Your task to perform on an android device: add a contact in the contacts app Image 0: 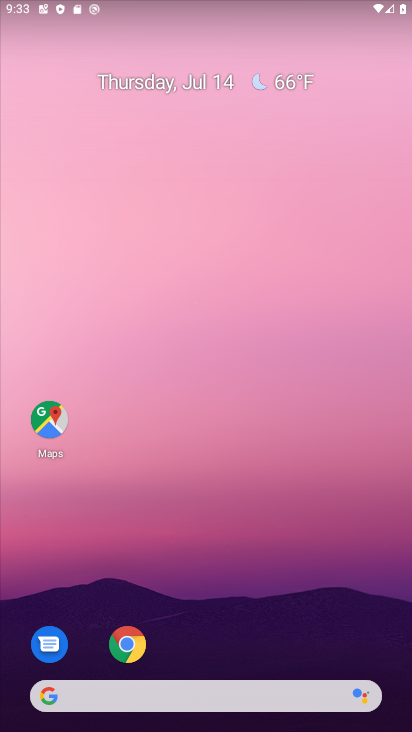
Step 0: drag from (223, 649) to (154, 302)
Your task to perform on an android device: add a contact in the contacts app Image 1: 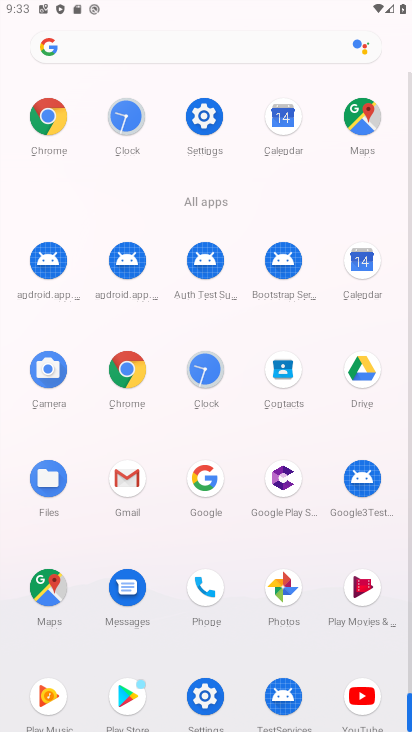
Step 1: click (279, 363)
Your task to perform on an android device: add a contact in the contacts app Image 2: 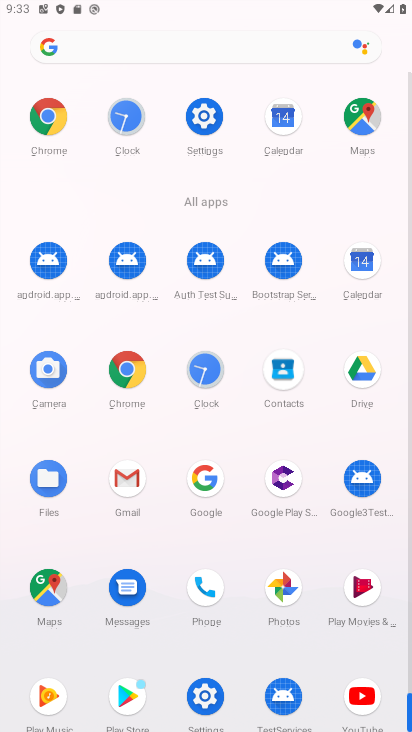
Step 2: click (279, 363)
Your task to perform on an android device: add a contact in the contacts app Image 3: 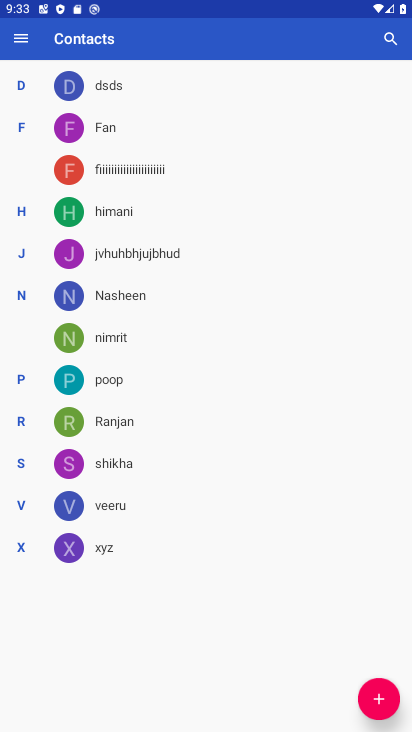
Step 3: click (377, 701)
Your task to perform on an android device: add a contact in the contacts app Image 4: 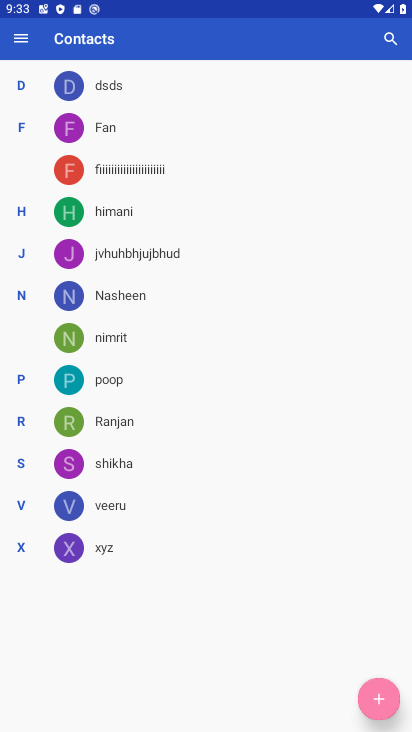
Step 4: click (376, 699)
Your task to perform on an android device: add a contact in the contacts app Image 5: 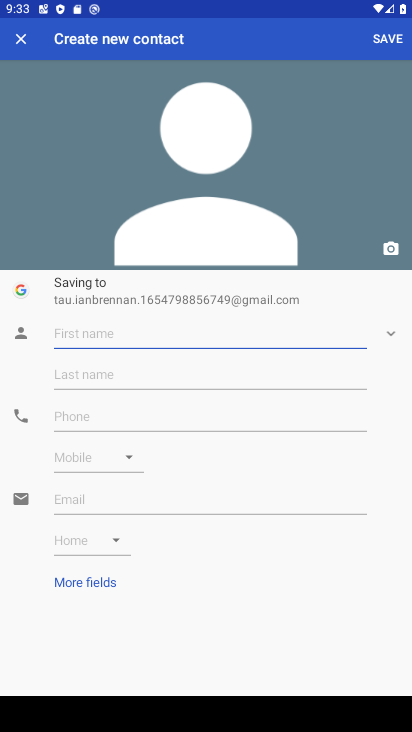
Step 5: type "jb jhbjhbjh"
Your task to perform on an android device: add a contact in the contacts app Image 6: 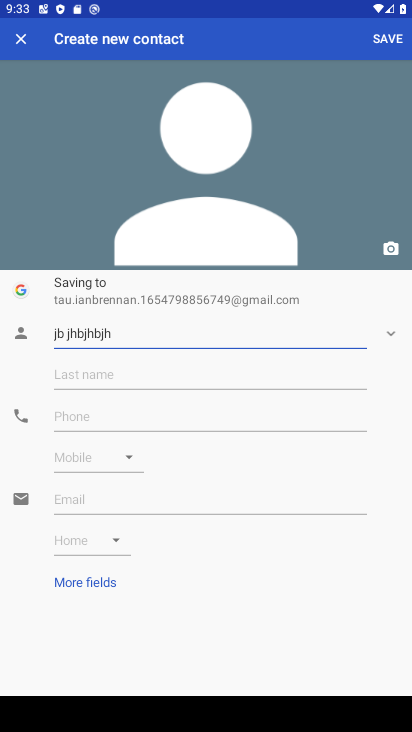
Step 6: click (62, 414)
Your task to perform on an android device: add a contact in the contacts app Image 7: 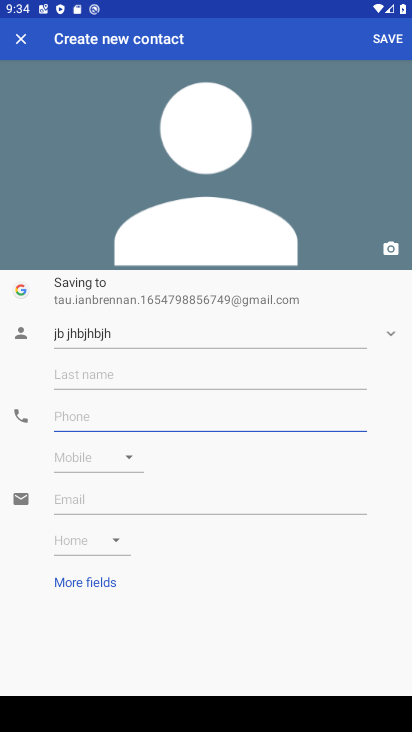
Step 7: type "745643834tt"
Your task to perform on an android device: add a contact in the contacts app Image 8: 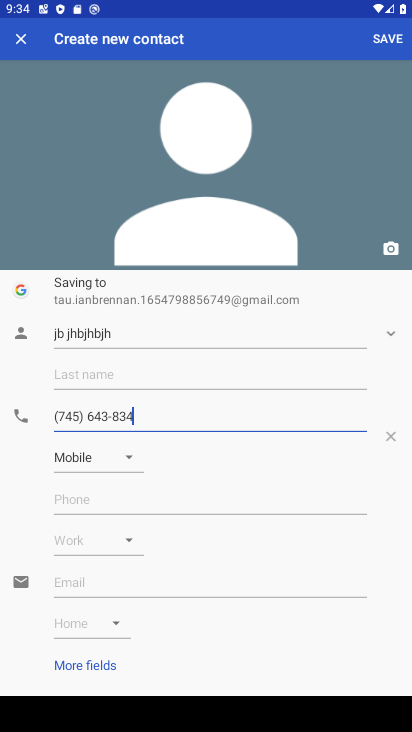
Step 8: click (386, 37)
Your task to perform on an android device: add a contact in the contacts app Image 9: 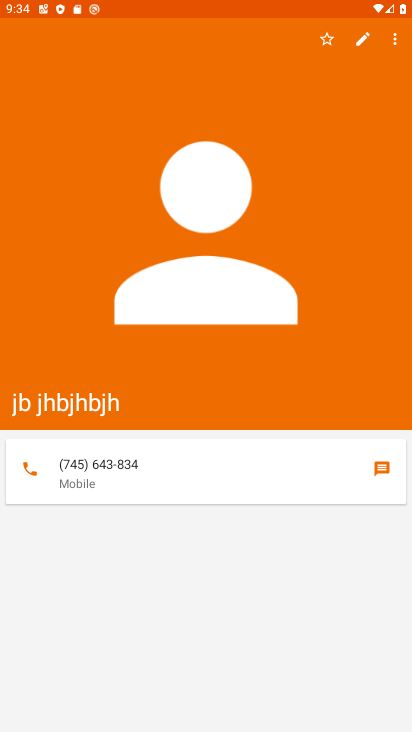
Step 9: task complete